Your task to perform on an android device: Open ESPN.com Image 0: 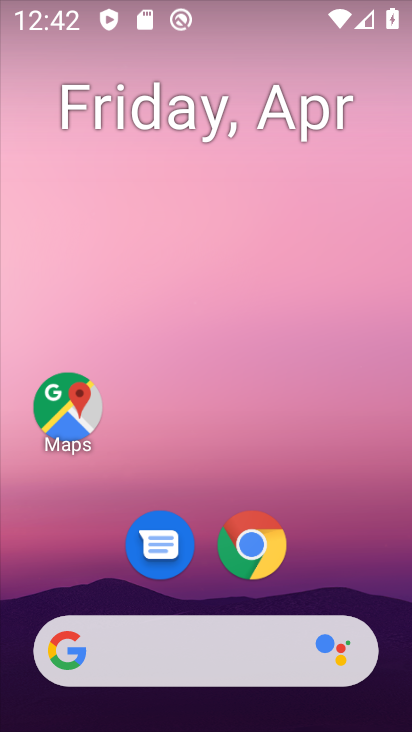
Step 0: click (158, 651)
Your task to perform on an android device: Open ESPN.com Image 1: 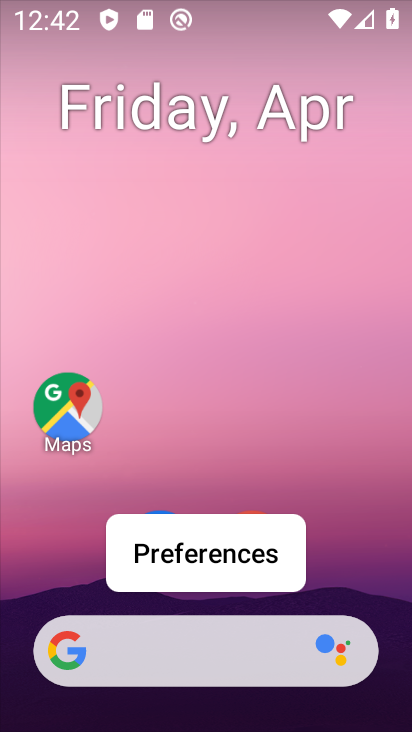
Step 1: click (158, 650)
Your task to perform on an android device: Open ESPN.com Image 2: 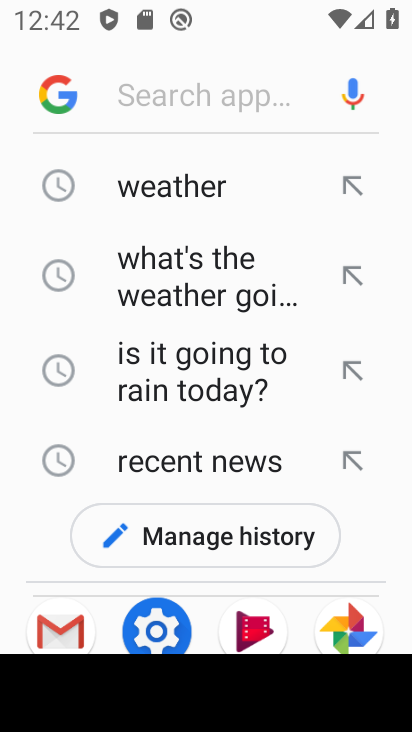
Step 2: type "ESPN.com"
Your task to perform on an android device: Open ESPN.com Image 3: 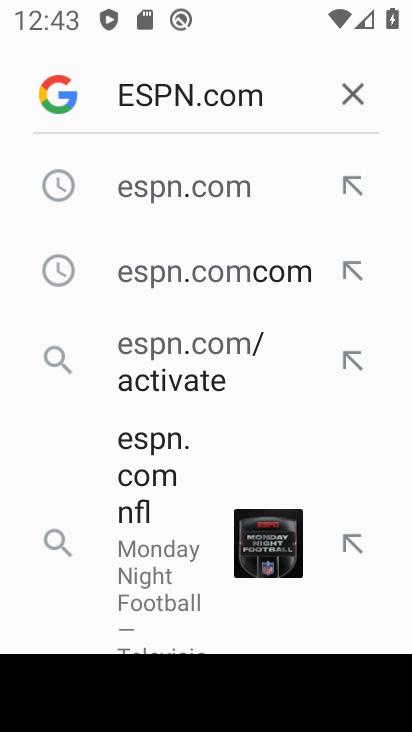
Step 3: click (233, 193)
Your task to perform on an android device: Open ESPN.com Image 4: 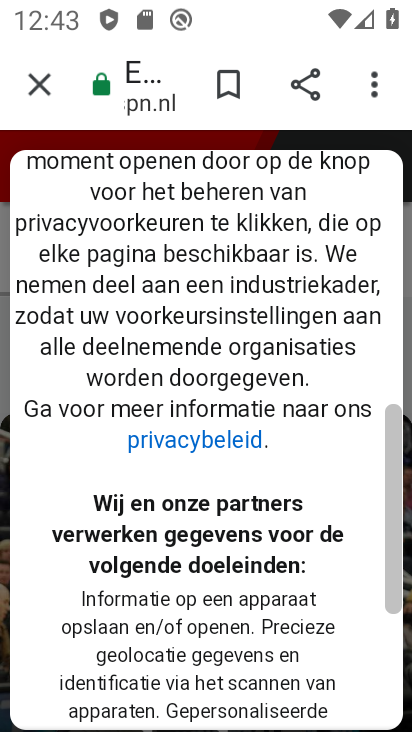
Step 4: task complete